Your task to perform on an android device: change notification settings in the gmail app Image 0: 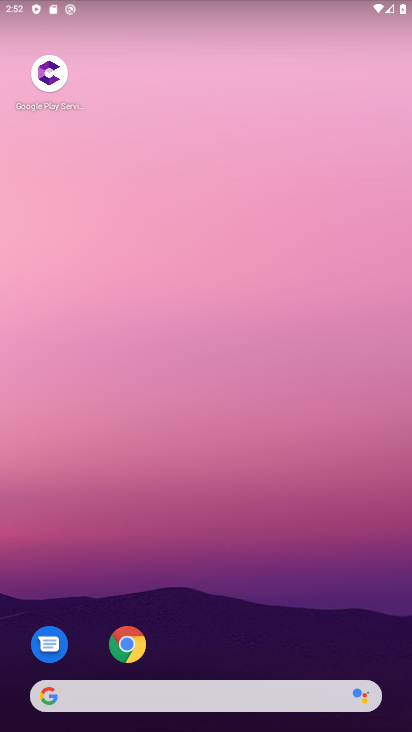
Step 0: drag from (233, 551) to (239, 22)
Your task to perform on an android device: change notification settings in the gmail app Image 1: 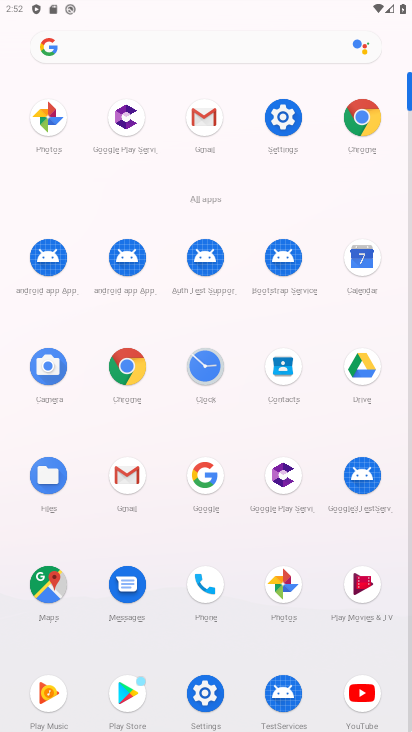
Step 1: click (200, 125)
Your task to perform on an android device: change notification settings in the gmail app Image 2: 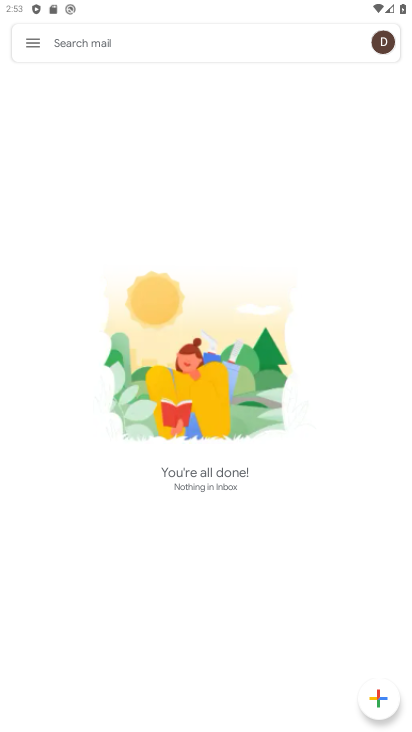
Step 2: click (40, 42)
Your task to perform on an android device: change notification settings in the gmail app Image 3: 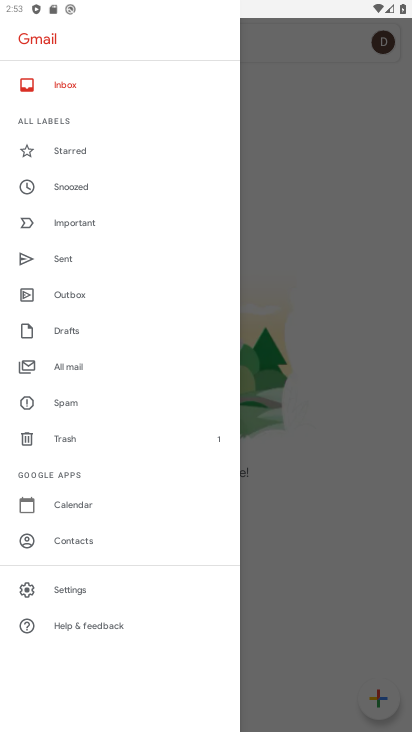
Step 3: click (81, 592)
Your task to perform on an android device: change notification settings in the gmail app Image 4: 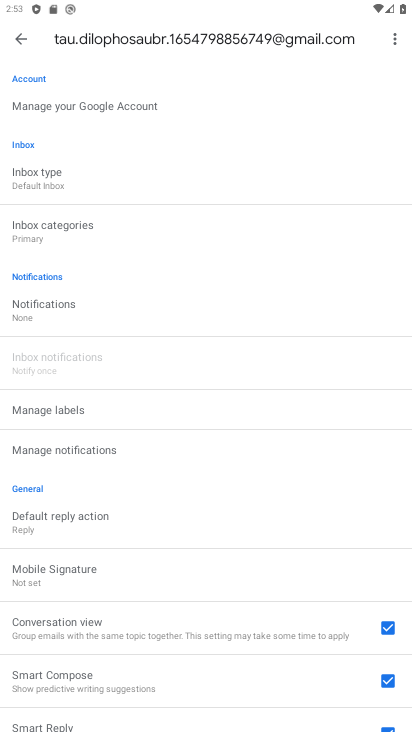
Step 4: click (71, 320)
Your task to perform on an android device: change notification settings in the gmail app Image 5: 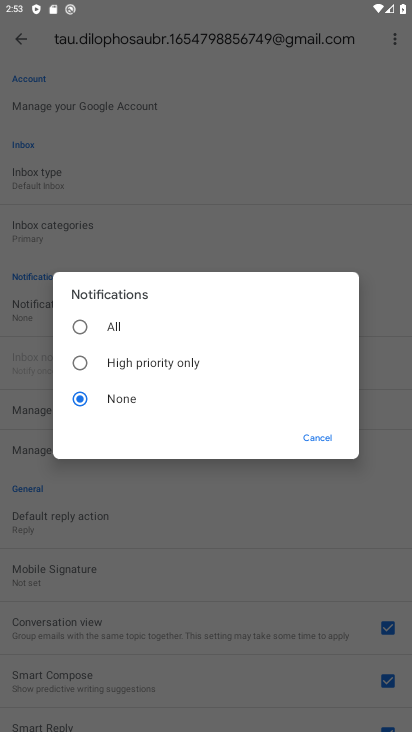
Step 5: click (86, 323)
Your task to perform on an android device: change notification settings in the gmail app Image 6: 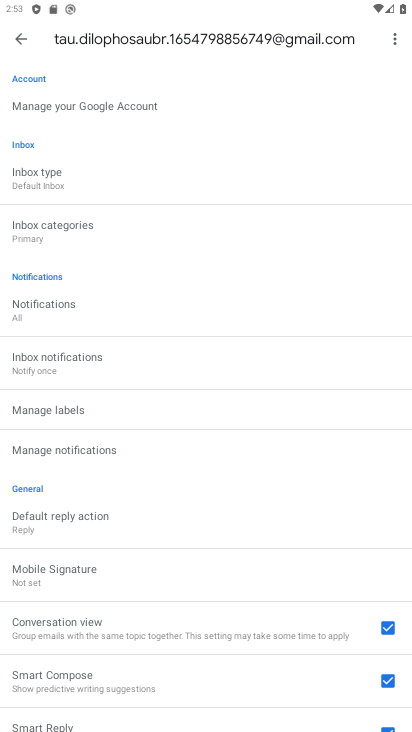
Step 6: task complete